Your task to perform on an android device: What's the weather? Image 0: 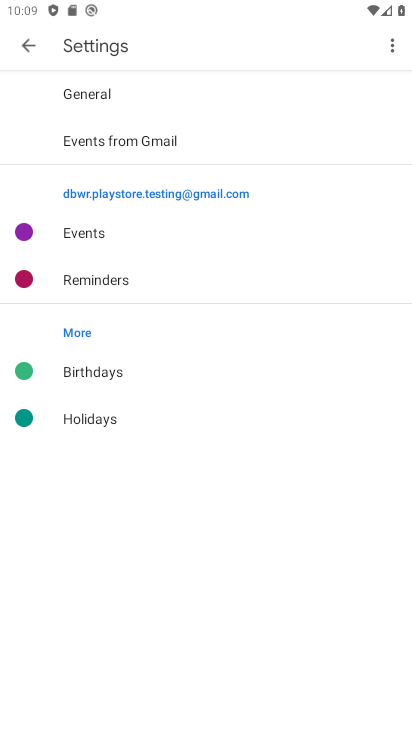
Step 0: press home button
Your task to perform on an android device: What's the weather? Image 1: 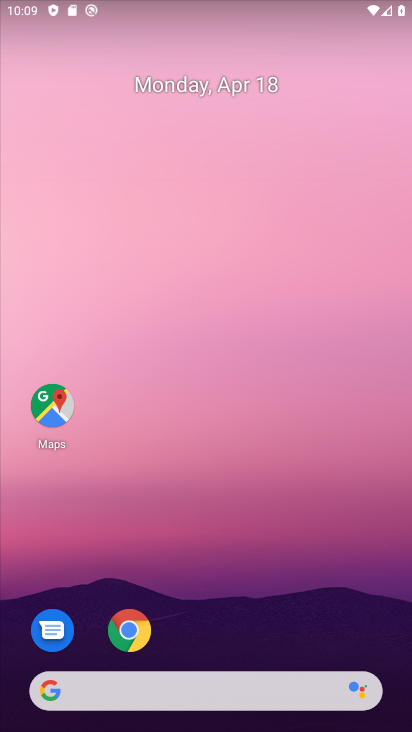
Step 1: click (145, 693)
Your task to perform on an android device: What's the weather? Image 2: 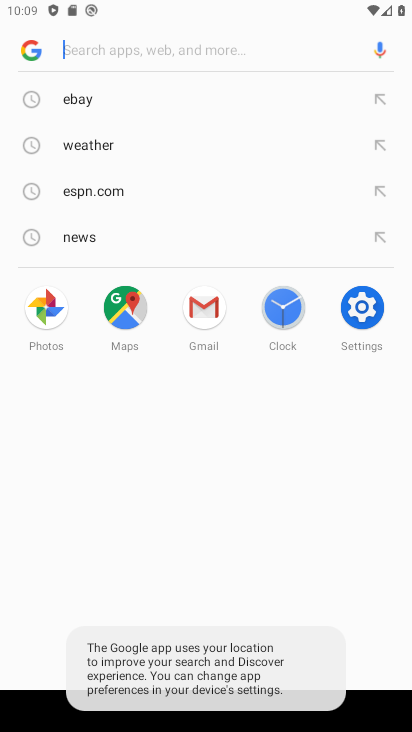
Step 2: click (24, 44)
Your task to perform on an android device: What's the weather? Image 3: 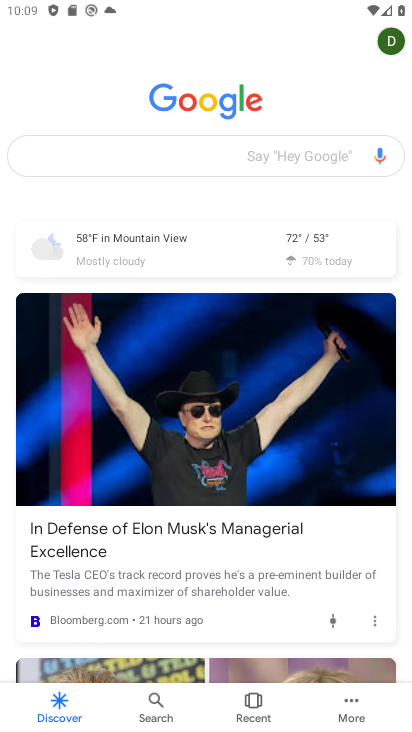
Step 3: click (263, 245)
Your task to perform on an android device: What's the weather? Image 4: 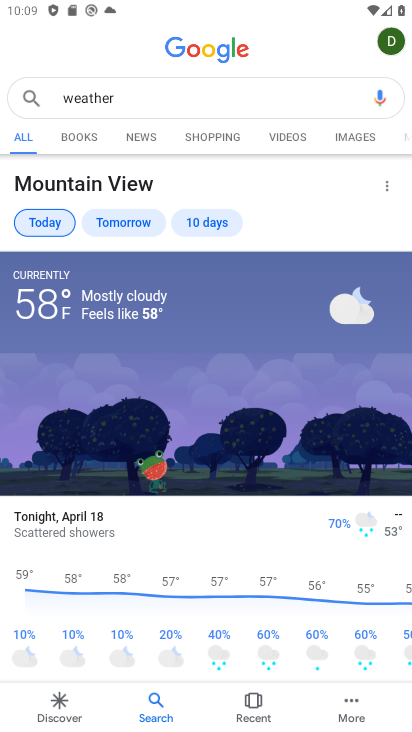
Step 4: task complete